Your task to perform on an android device: Go to accessibility settings Image 0: 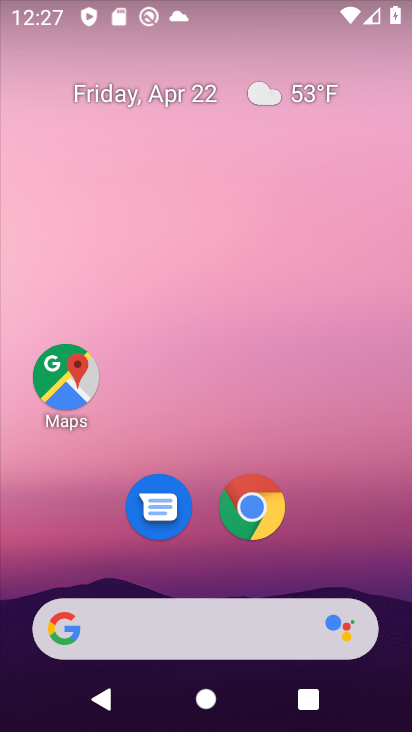
Step 0: drag from (348, 542) to (318, 82)
Your task to perform on an android device: Go to accessibility settings Image 1: 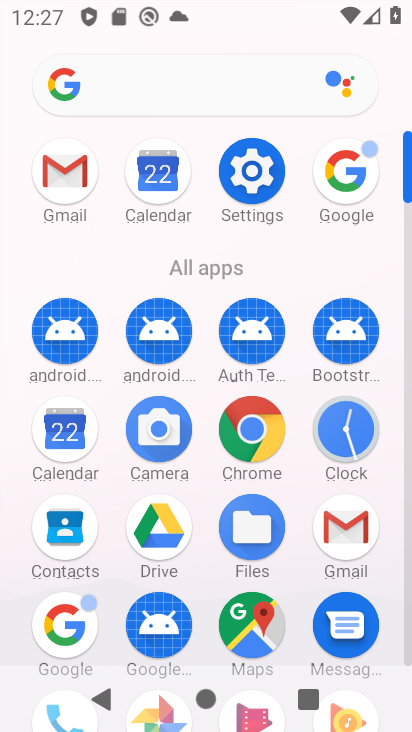
Step 1: click (261, 184)
Your task to perform on an android device: Go to accessibility settings Image 2: 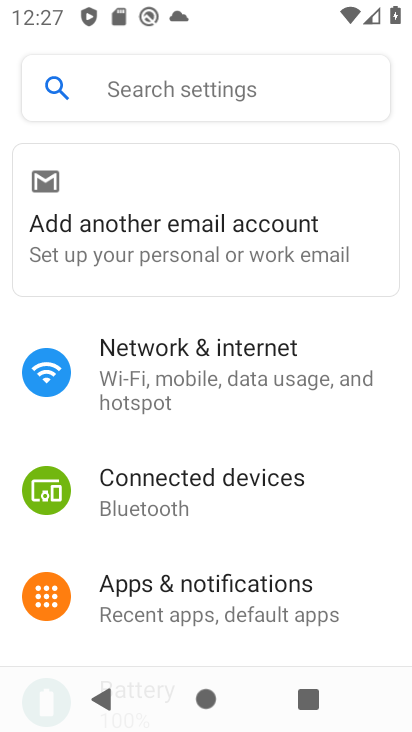
Step 2: drag from (191, 540) to (198, 241)
Your task to perform on an android device: Go to accessibility settings Image 3: 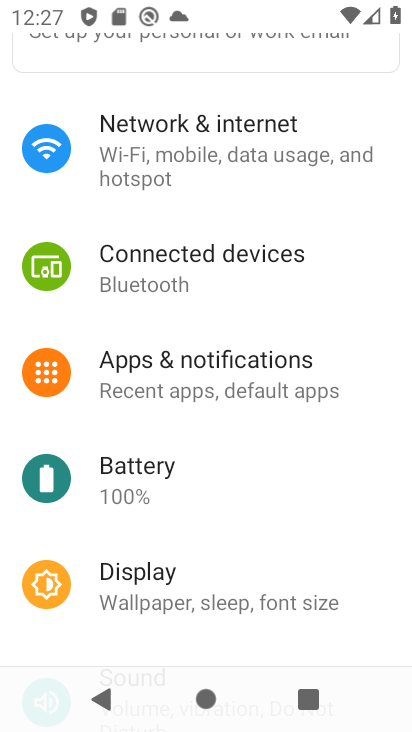
Step 3: drag from (190, 323) to (175, 141)
Your task to perform on an android device: Go to accessibility settings Image 4: 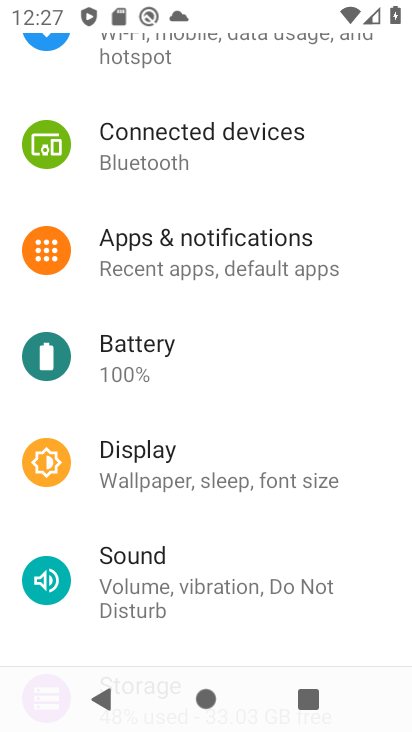
Step 4: drag from (171, 596) to (146, 177)
Your task to perform on an android device: Go to accessibility settings Image 5: 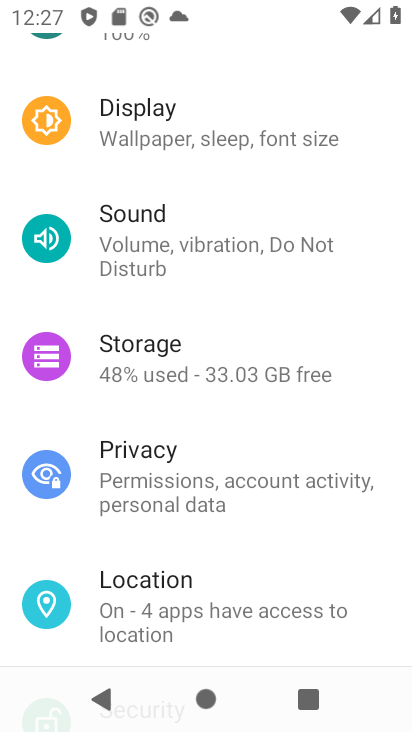
Step 5: drag from (168, 566) to (178, 239)
Your task to perform on an android device: Go to accessibility settings Image 6: 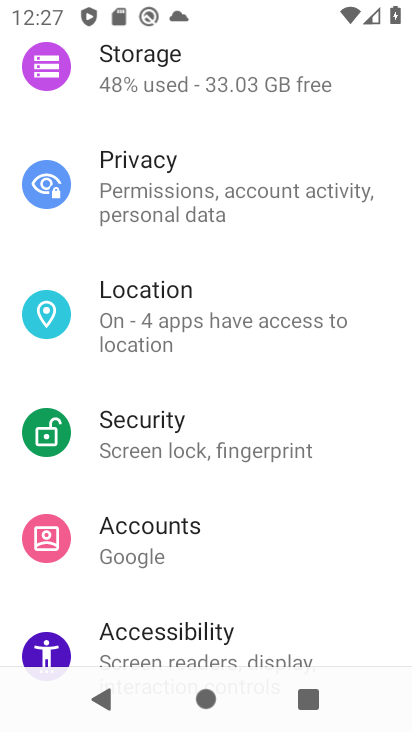
Step 6: click (167, 637)
Your task to perform on an android device: Go to accessibility settings Image 7: 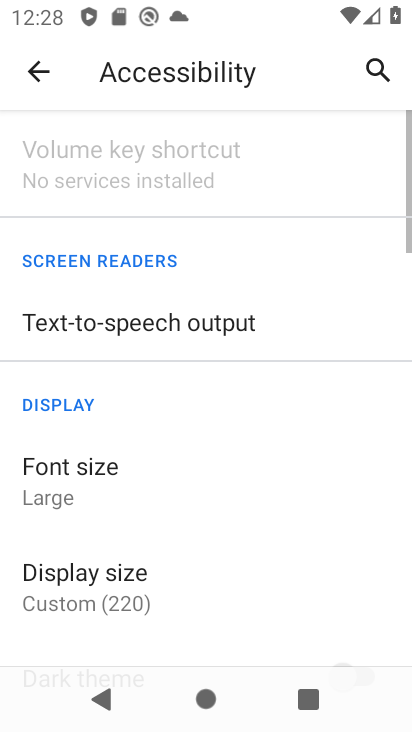
Step 7: task complete